Your task to perform on an android device: Go to Yahoo.com Image 0: 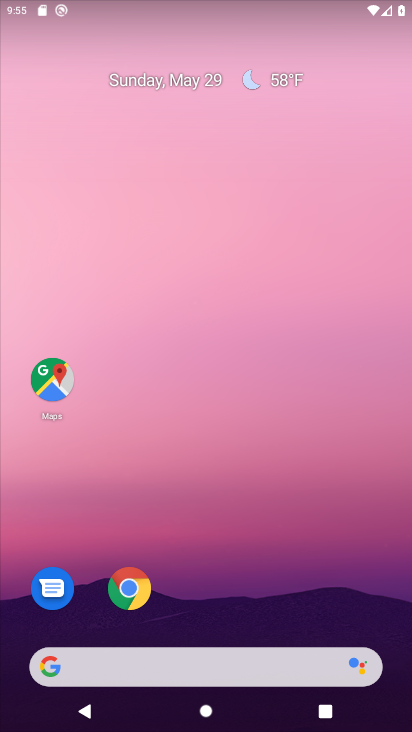
Step 0: drag from (307, 710) to (210, 188)
Your task to perform on an android device: Go to Yahoo.com Image 1: 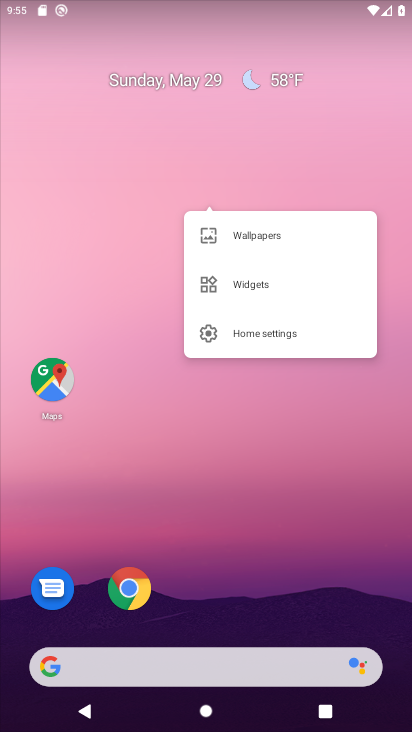
Step 1: drag from (286, 649) to (196, 133)
Your task to perform on an android device: Go to Yahoo.com Image 2: 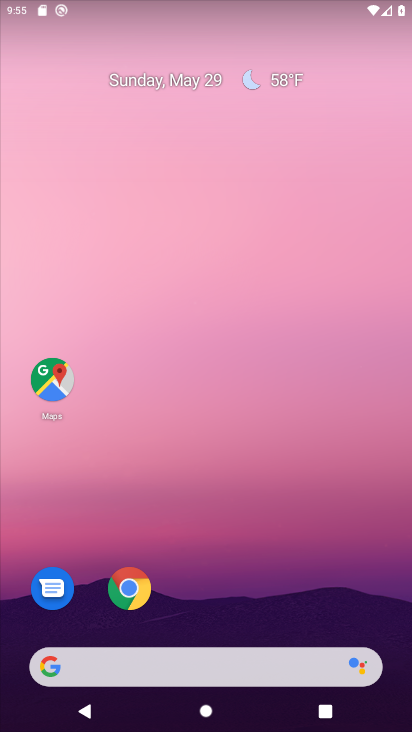
Step 2: click (188, 129)
Your task to perform on an android device: Go to Yahoo.com Image 3: 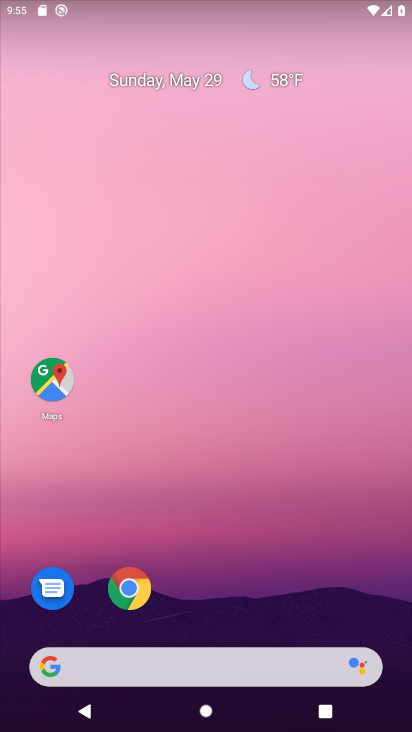
Step 3: click (180, 133)
Your task to perform on an android device: Go to Yahoo.com Image 4: 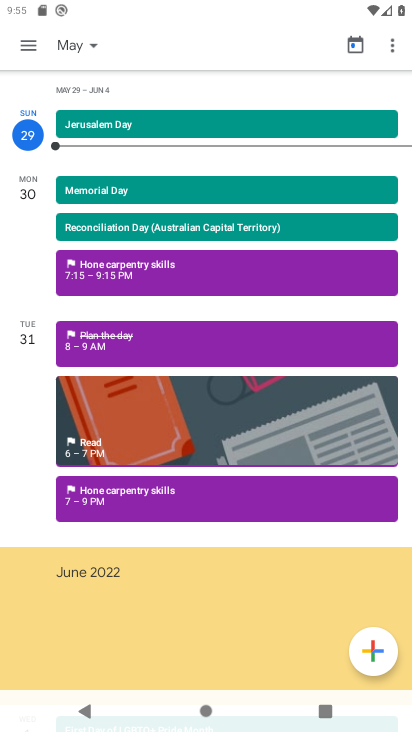
Step 4: drag from (250, 568) to (231, 111)
Your task to perform on an android device: Go to Yahoo.com Image 5: 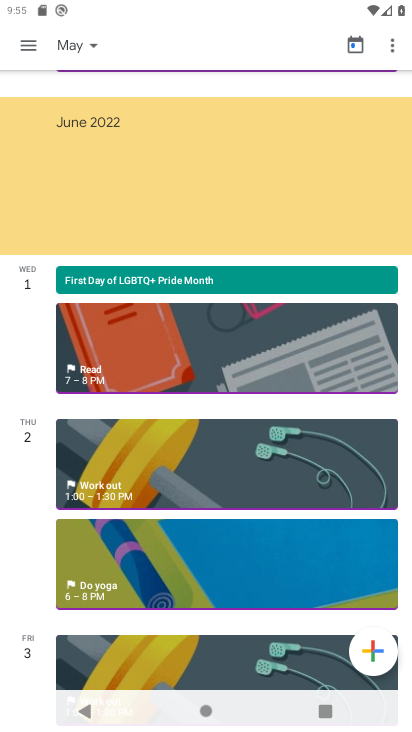
Step 5: press back button
Your task to perform on an android device: Go to Yahoo.com Image 6: 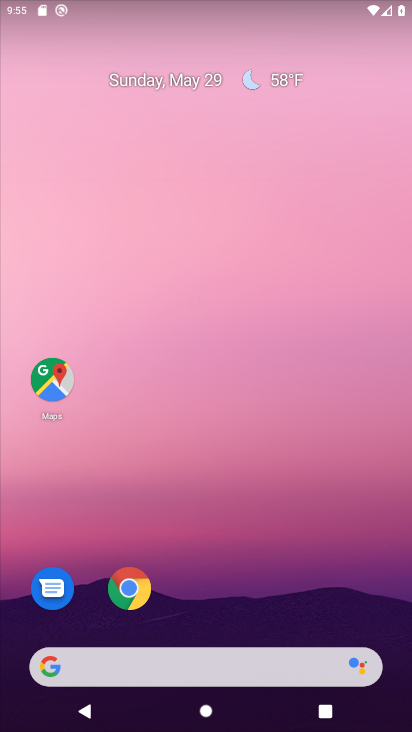
Step 6: drag from (266, 689) to (215, 164)
Your task to perform on an android device: Go to Yahoo.com Image 7: 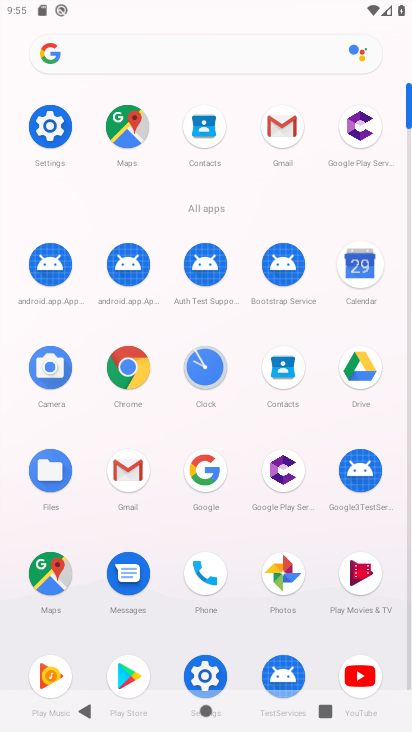
Step 7: click (134, 379)
Your task to perform on an android device: Go to Yahoo.com Image 8: 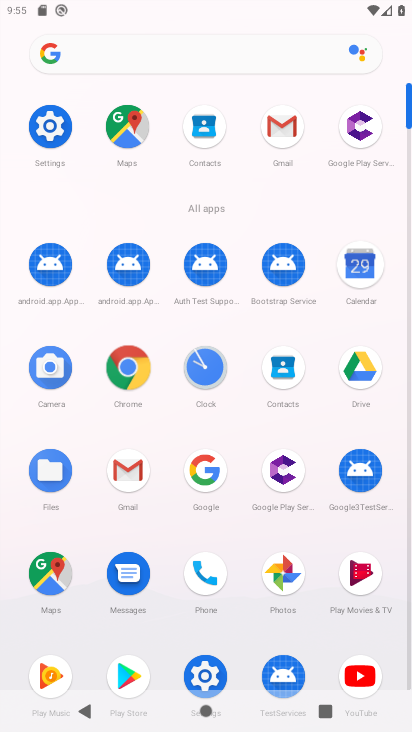
Step 8: click (137, 373)
Your task to perform on an android device: Go to Yahoo.com Image 9: 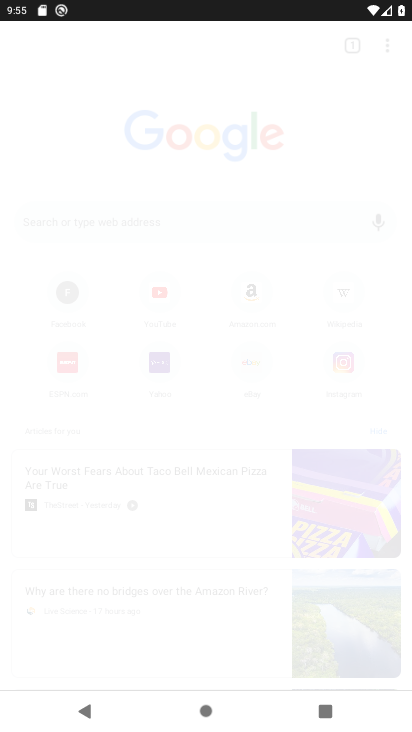
Step 9: click (138, 371)
Your task to perform on an android device: Go to Yahoo.com Image 10: 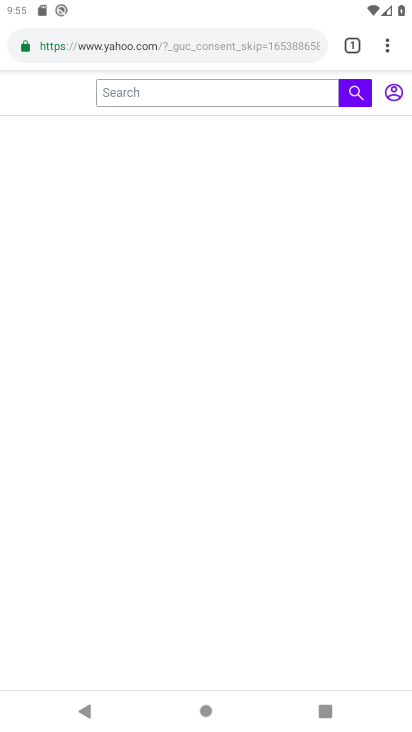
Step 10: task complete